Your task to perform on an android device: find which apps use the phone's location Image 0: 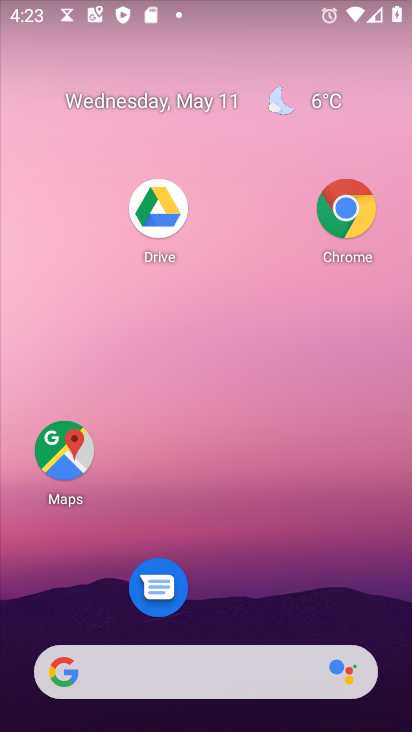
Step 0: drag from (280, 505) to (331, 119)
Your task to perform on an android device: find which apps use the phone's location Image 1: 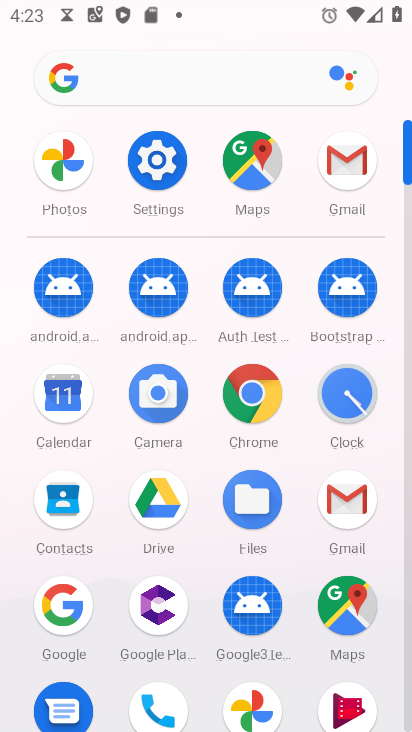
Step 1: click (145, 160)
Your task to perform on an android device: find which apps use the phone's location Image 2: 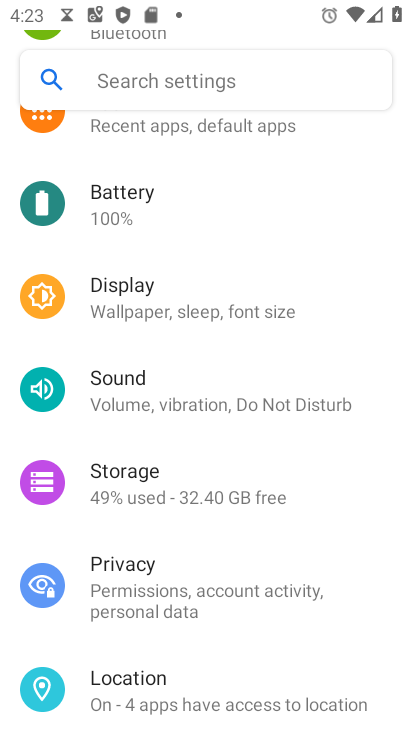
Step 2: drag from (248, 201) to (271, 537)
Your task to perform on an android device: find which apps use the phone's location Image 3: 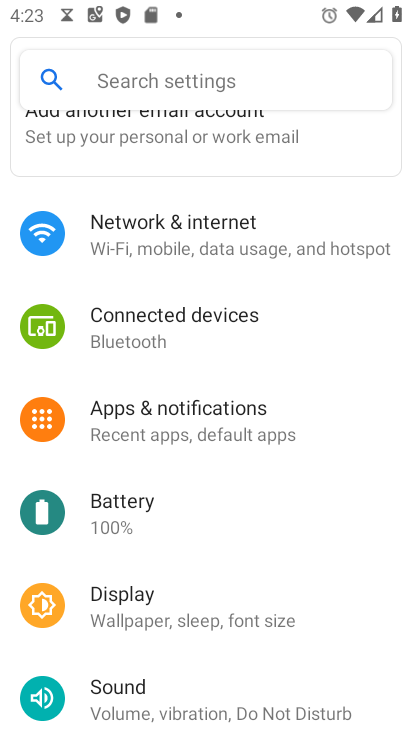
Step 3: drag from (271, 574) to (404, 212)
Your task to perform on an android device: find which apps use the phone's location Image 4: 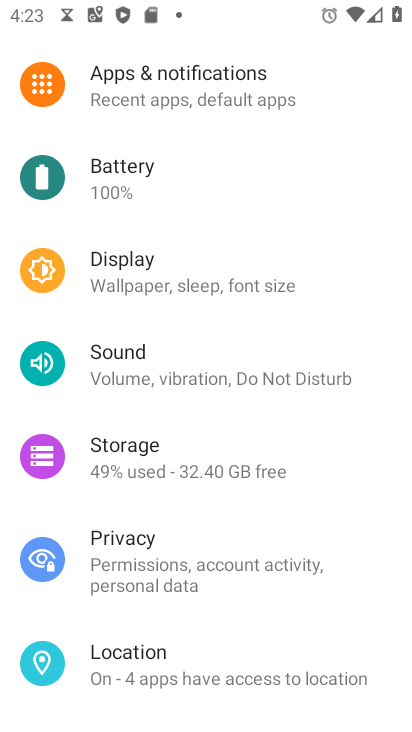
Step 4: click (262, 672)
Your task to perform on an android device: find which apps use the phone's location Image 5: 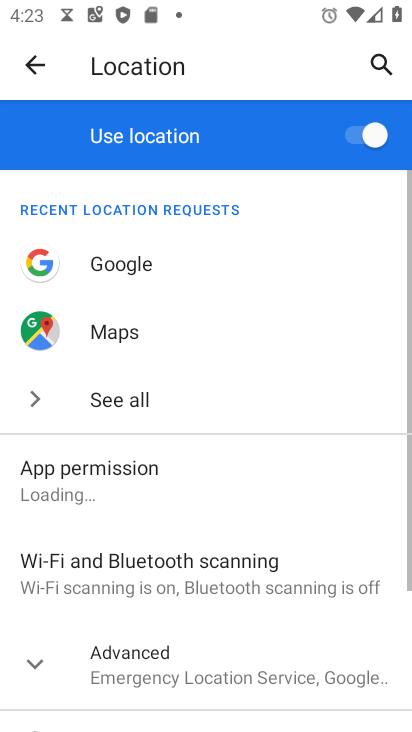
Step 5: task complete